Your task to perform on an android device: Open the web browser Image 0: 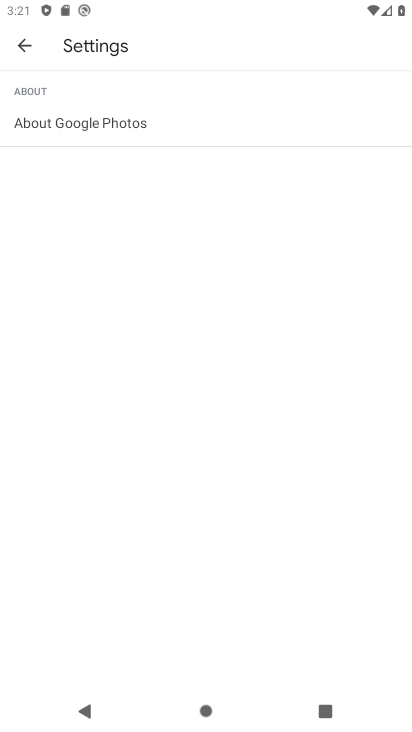
Step 0: press home button
Your task to perform on an android device: Open the web browser Image 1: 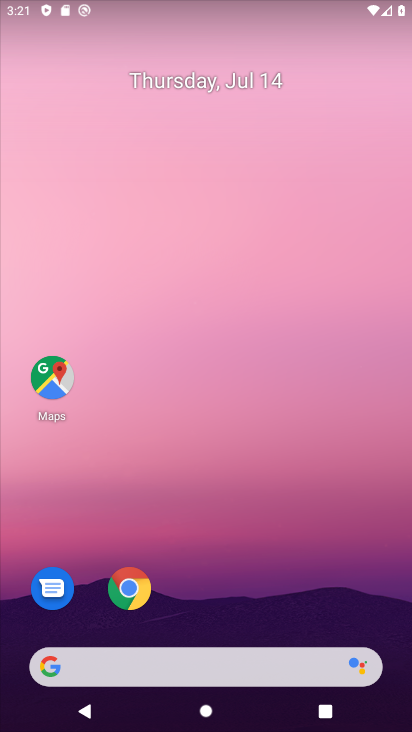
Step 1: drag from (213, 612) to (243, 153)
Your task to perform on an android device: Open the web browser Image 2: 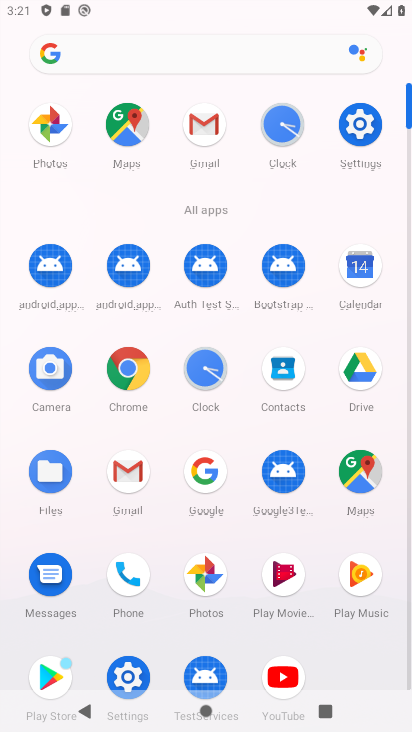
Step 2: click (196, 470)
Your task to perform on an android device: Open the web browser Image 3: 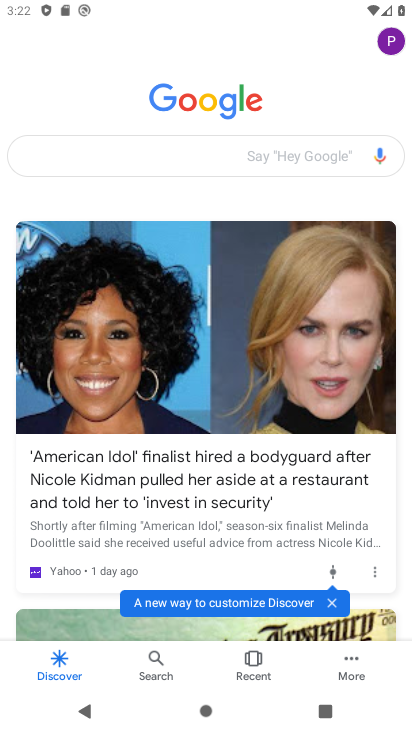
Step 3: task complete